Your task to perform on an android device: open wifi settings Image 0: 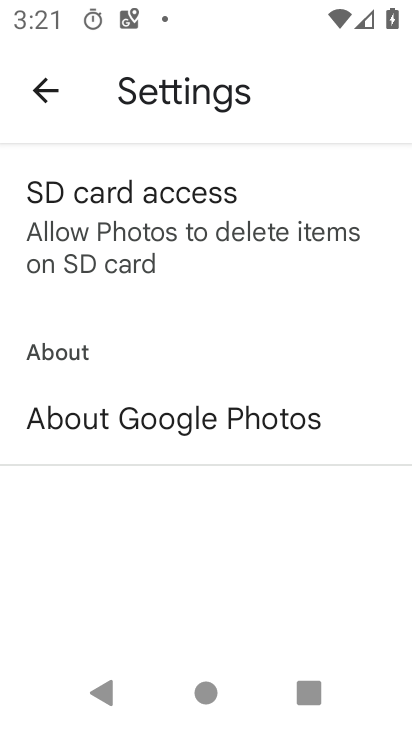
Step 0: press home button
Your task to perform on an android device: open wifi settings Image 1: 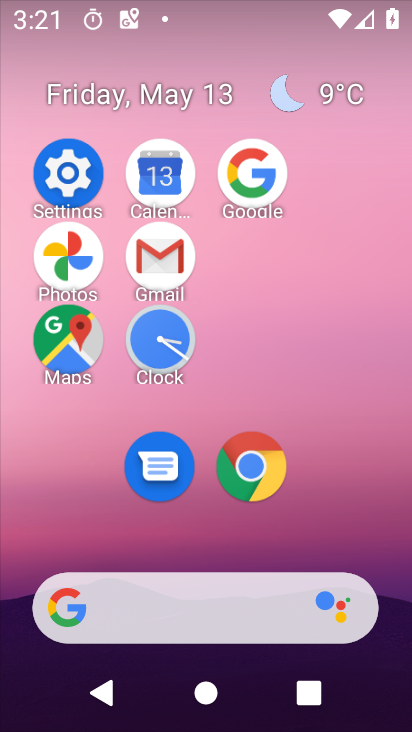
Step 1: click (79, 170)
Your task to perform on an android device: open wifi settings Image 2: 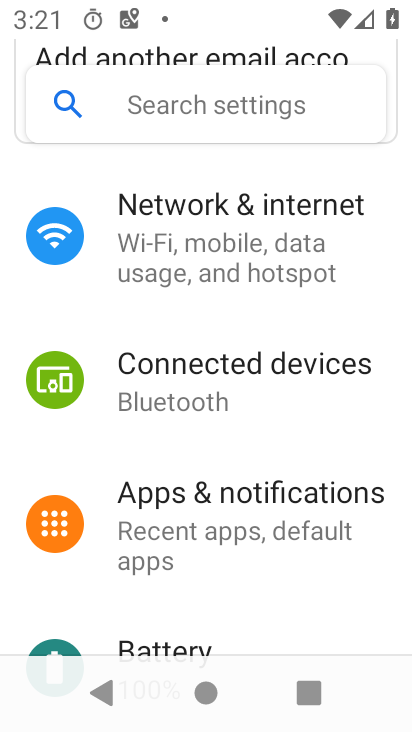
Step 2: click (265, 260)
Your task to perform on an android device: open wifi settings Image 3: 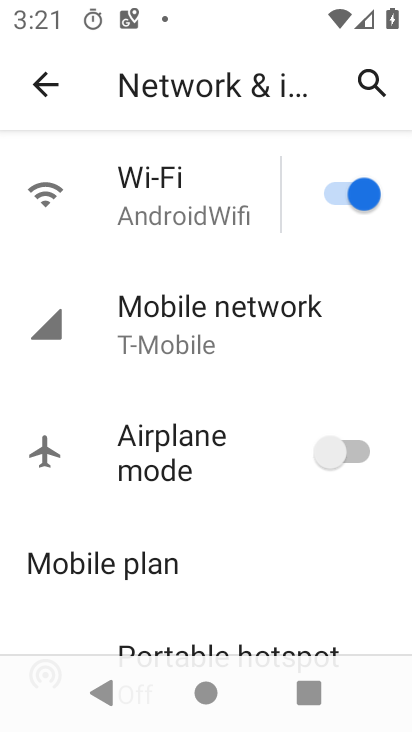
Step 3: click (157, 202)
Your task to perform on an android device: open wifi settings Image 4: 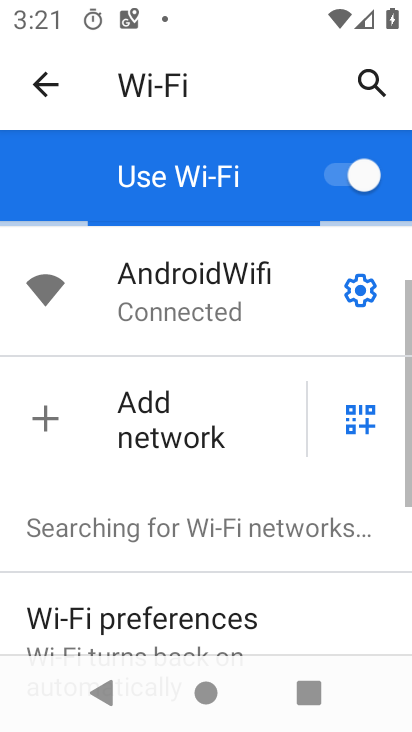
Step 4: click (359, 291)
Your task to perform on an android device: open wifi settings Image 5: 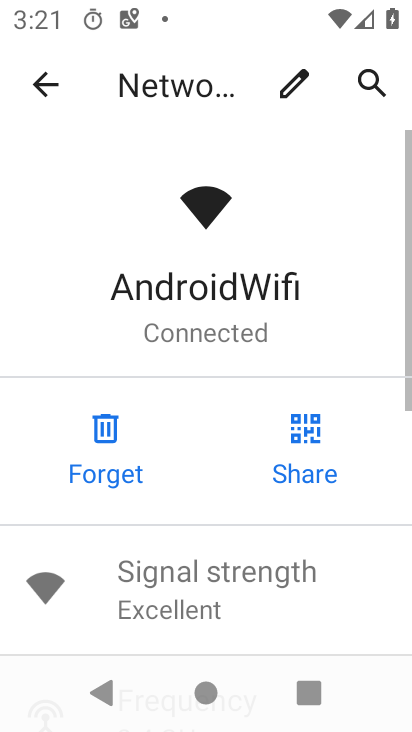
Step 5: task complete